Your task to perform on an android device: Search for the best rated phone case for the iPhone 8. Image 0: 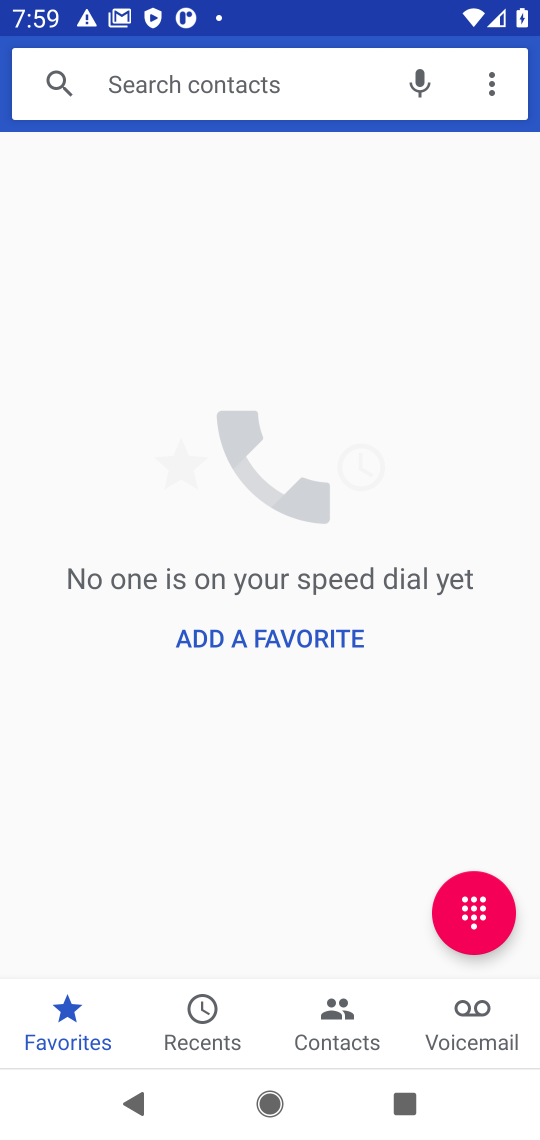
Step 0: press home button
Your task to perform on an android device: Search for the best rated phone case for the iPhone 8. Image 1: 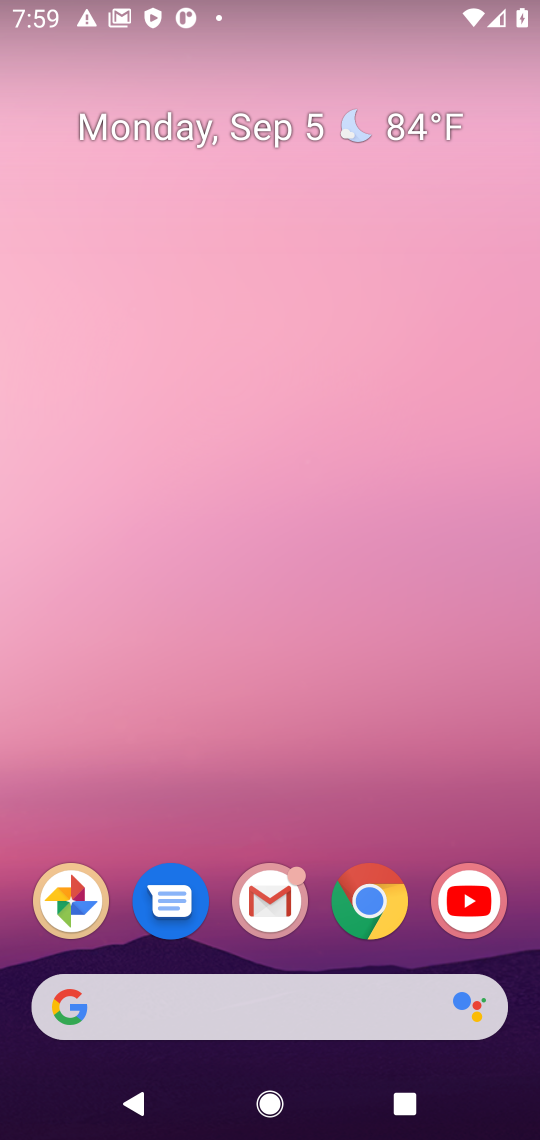
Step 1: click (378, 907)
Your task to perform on an android device: Search for the best rated phone case for the iPhone 8. Image 2: 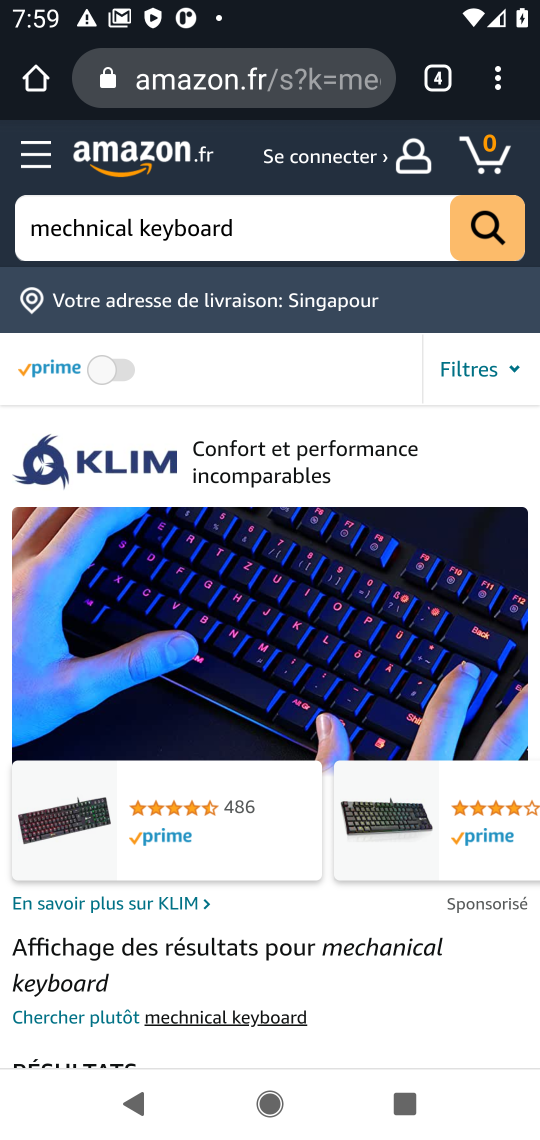
Step 2: click (234, 97)
Your task to perform on an android device: Search for the best rated phone case for the iPhone 8. Image 3: 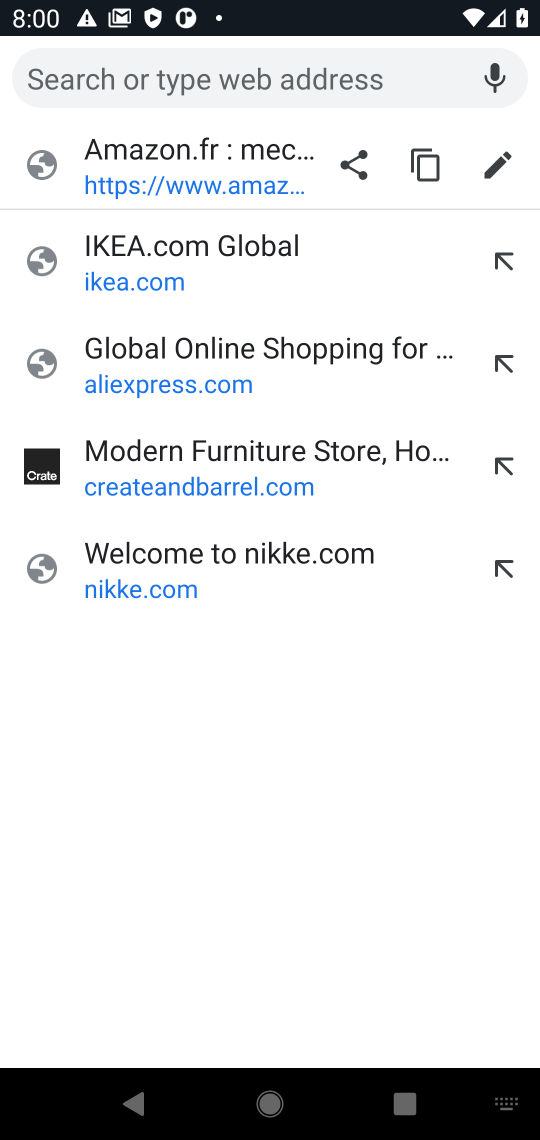
Step 3: type "phone case for iphone 8"
Your task to perform on an android device: Search for the best rated phone case for the iPhone 8. Image 4: 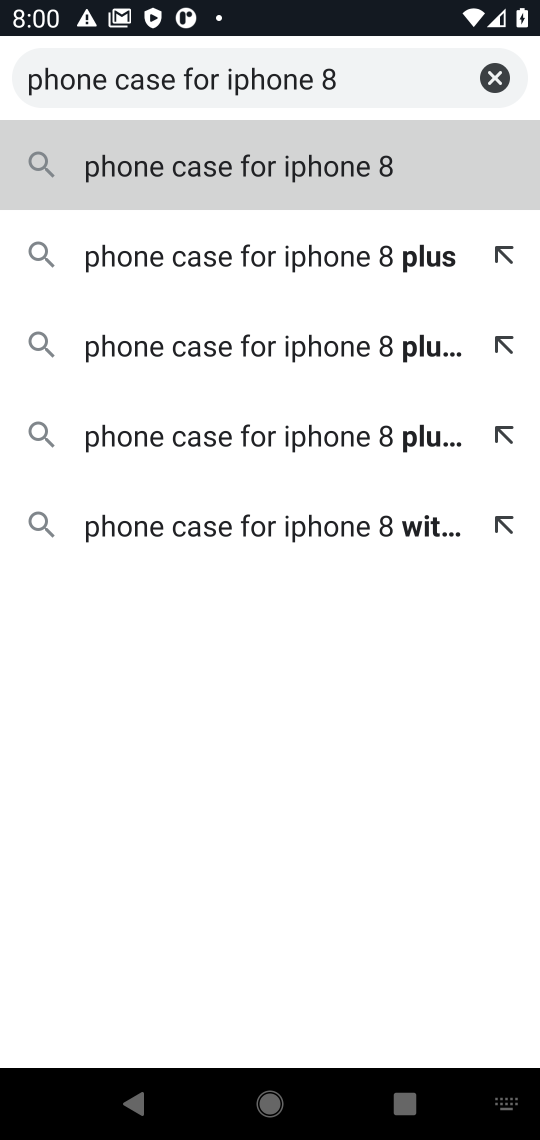
Step 4: click (261, 193)
Your task to perform on an android device: Search for the best rated phone case for the iPhone 8. Image 5: 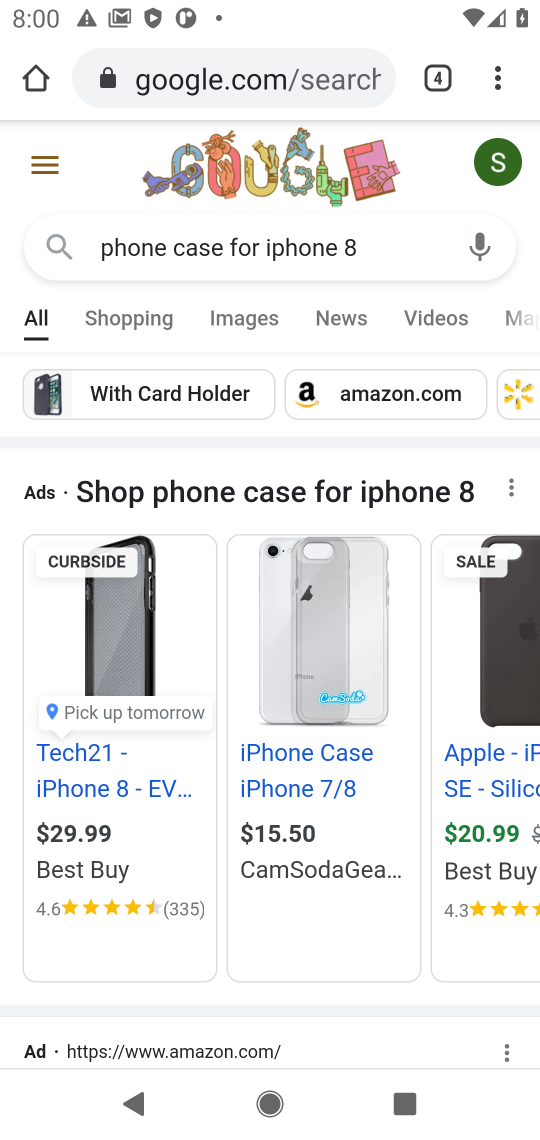
Step 5: click (110, 838)
Your task to perform on an android device: Search for the best rated phone case for the iPhone 8. Image 6: 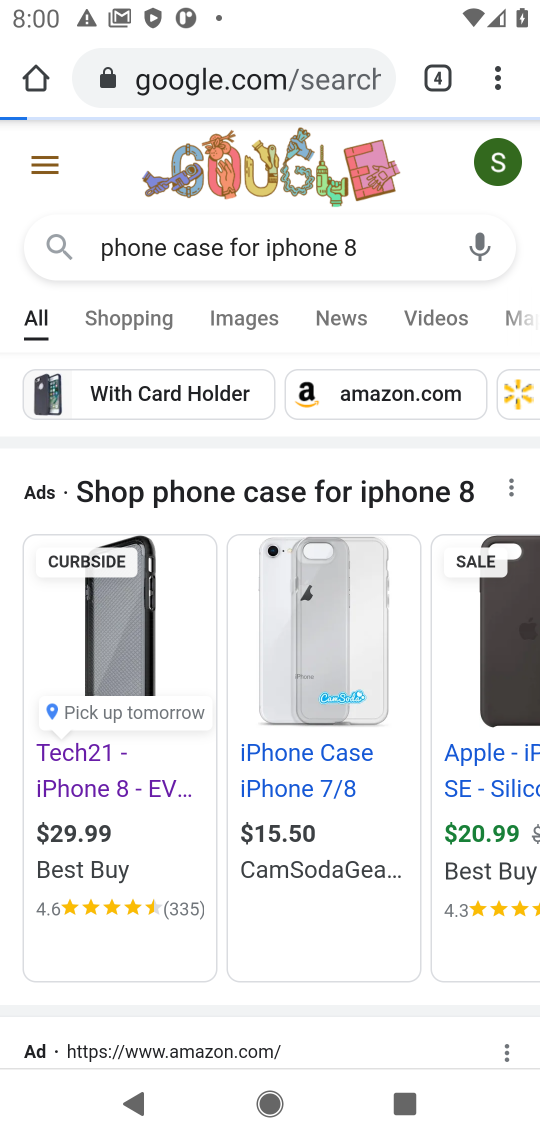
Step 6: task complete